Your task to perform on an android device: visit the assistant section in the google photos Image 0: 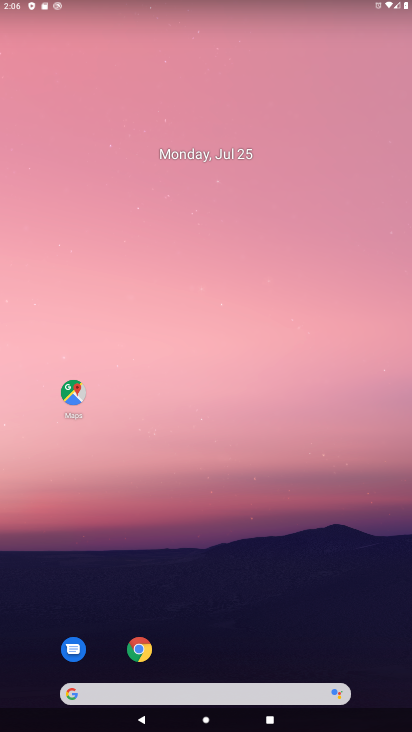
Step 0: drag from (375, 667) to (329, 95)
Your task to perform on an android device: visit the assistant section in the google photos Image 1: 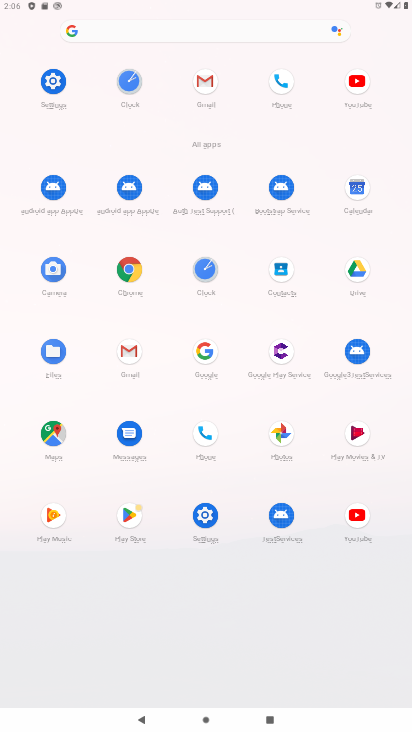
Step 1: click (280, 432)
Your task to perform on an android device: visit the assistant section in the google photos Image 2: 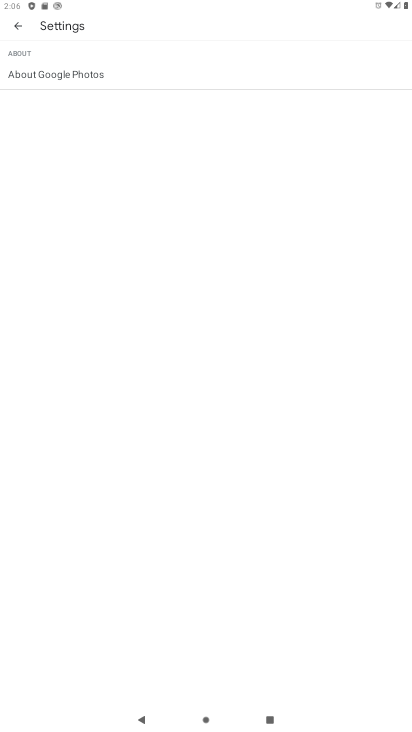
Step 2: press back button
Your task to perform on an android device: visit the assistant section in the google photos Image 3: 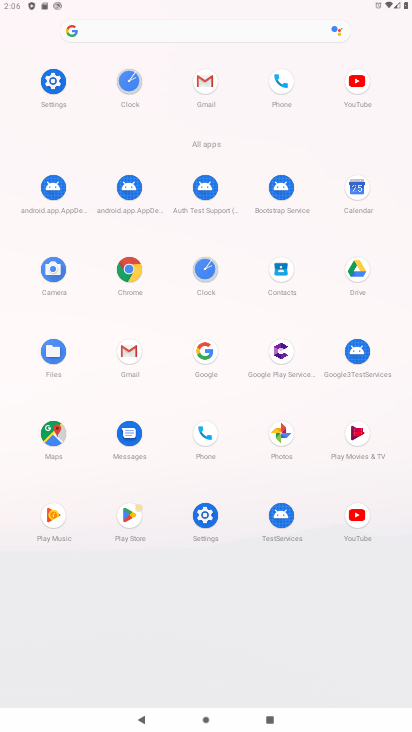
Step 3: click (280, 431)
Your task to perform on an android device: visit the assistant section in the google photos Image 4: 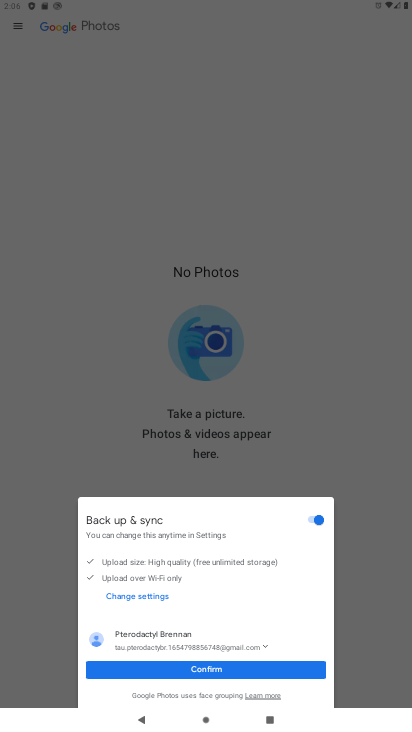
Step 4: click (201, 670)
Your task to perform on an android device: visit the assistant section in the google photos Image 5: 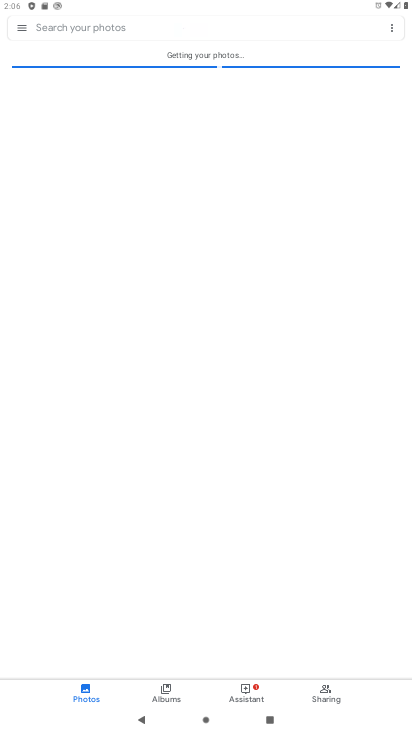
Step 5: click (238, 692)
Your task to perform on an android device: visit the assistant section in the google photos Image 6: 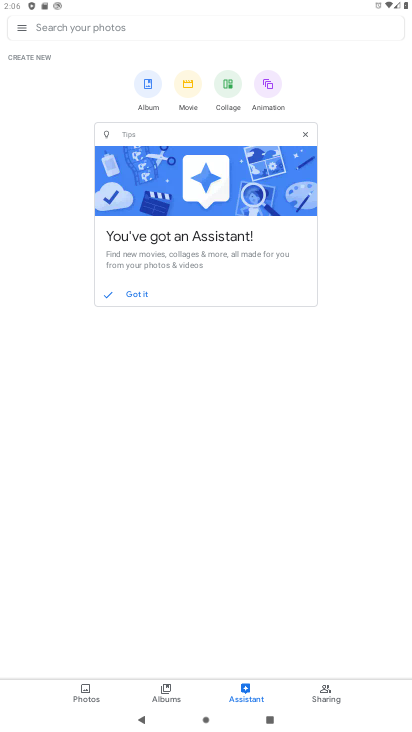
Step 6: task complete